Your task to perform on an android device: Go to CNN.com Image 0: 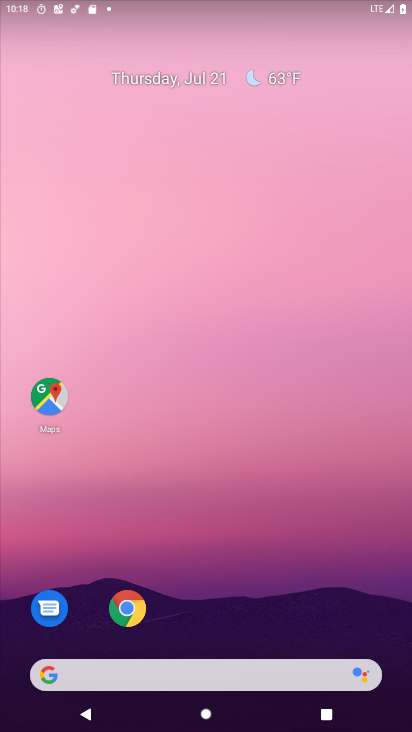
Step 0: drag from (186, 546) to (212, 161)
Your task to perform on an android device: Go to CNN.com Image 1: 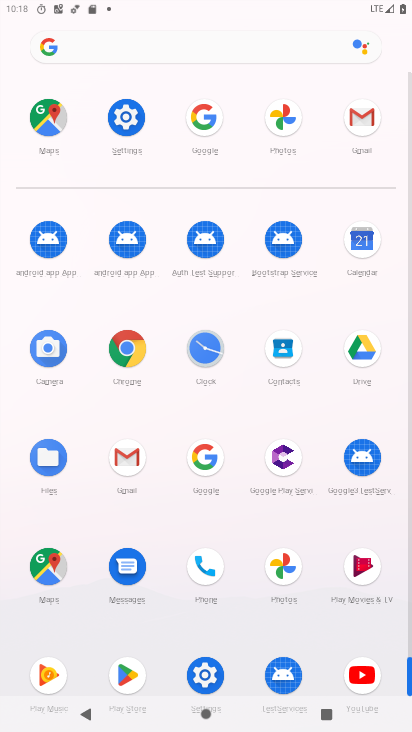
Step 1: click (138, 356)
Your task to perform on an android device: Go to CNN.com Image 2: 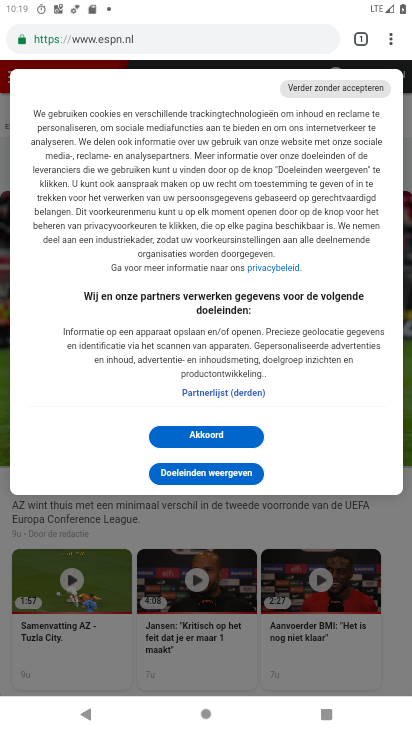
Step 2: click (210, 38)
Your task to perform on an android device: Go to CNN.com Image 3: 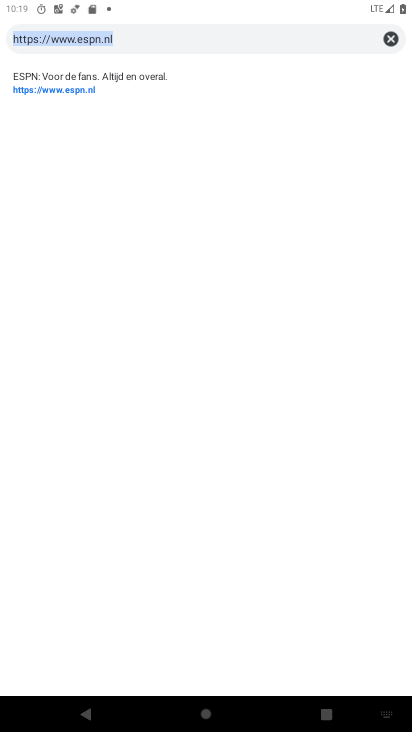
Step 3: type "cnn"
Your task to perform on an android device: Go to CNN.com Image 4: 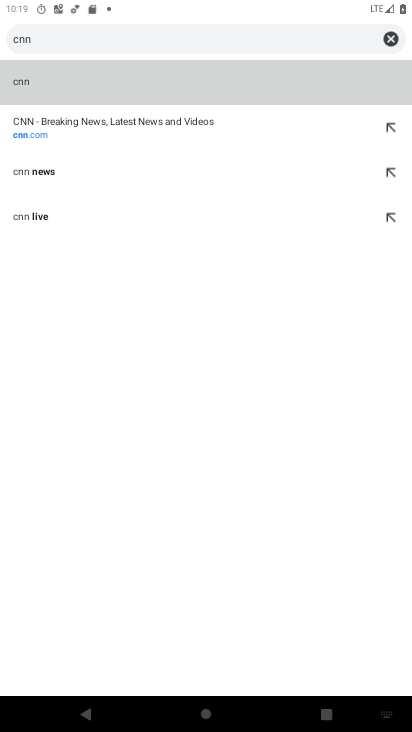
Step 4: click (98, 124)
Your task to perform on an android device: Go to CNN.com Image 5: 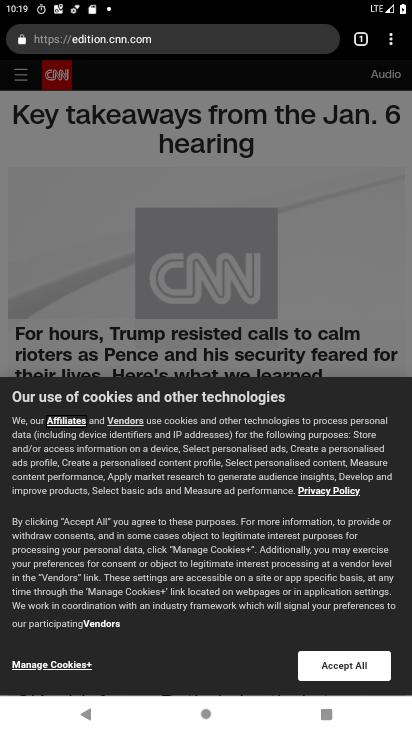
Step 5: task complete